Your task to perform on an android device: toggle javascript in the chrome app Image 0: 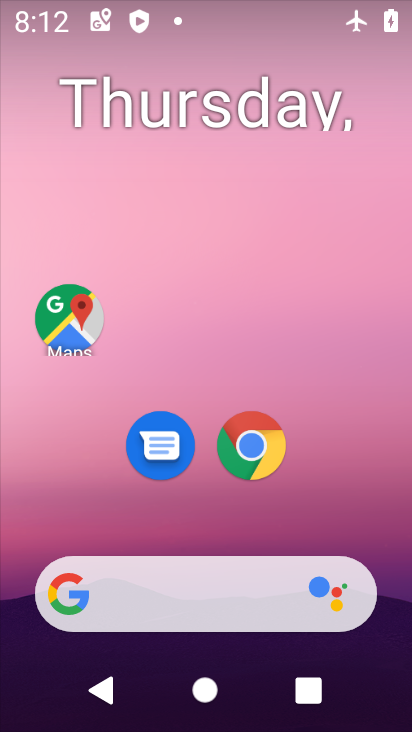
Step 0: drag from (389, 618) to (265, 68)
Your task to perform on an android device: toggle javascript in the chrome app Image 1: 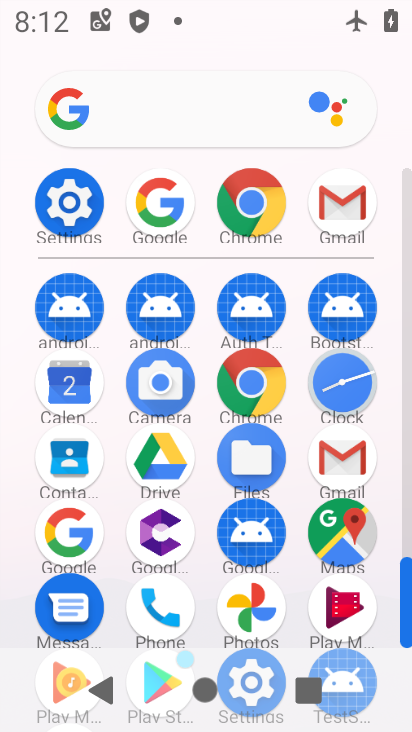
Step 1: click (271, 204)
Your task to perform on an android device: toggle javascript in the chrome app Image 2: 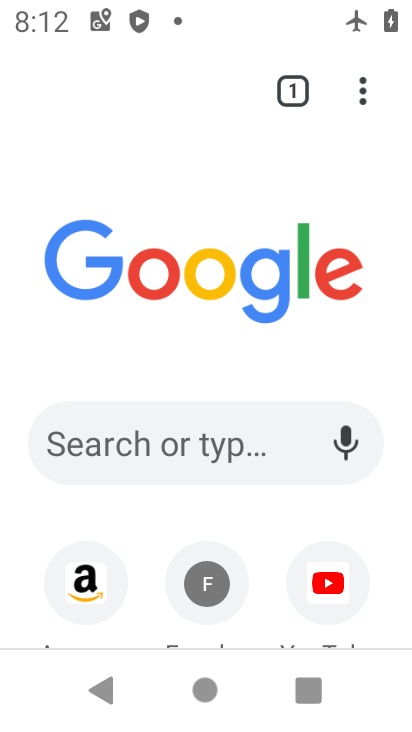
Step 2: click (365, 82)
Your task to perform on an android device: toggle javascript in the chrome app Image 3: 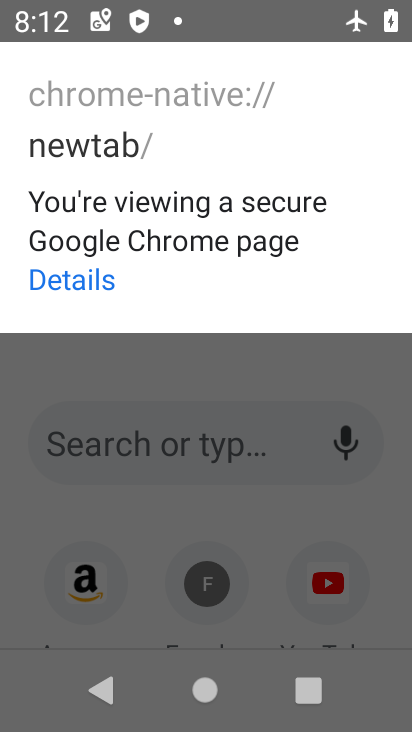
Step 3: press back button
Your task to perform on an android device: toggle javascript in the chrome app Image 4: 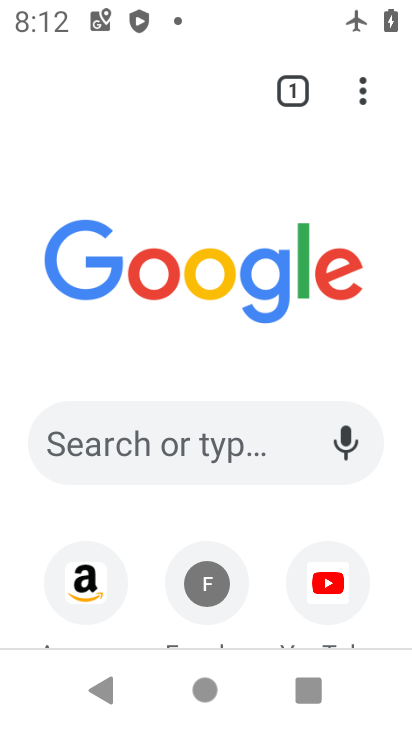
Step 4: click (360, 90)
Your task to perform on an android device: toggle javascript in the chrome app Image 5: 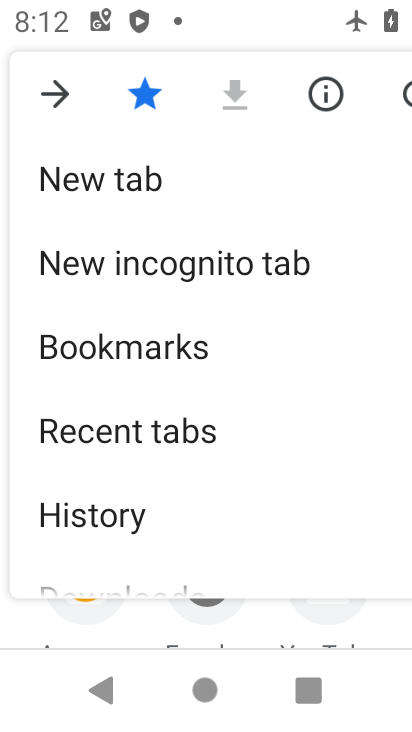
Step 5: drag from (145, 500) to (127, 75)
Your task to perform on an android device: toggle javascript in the chrome app Image 6: 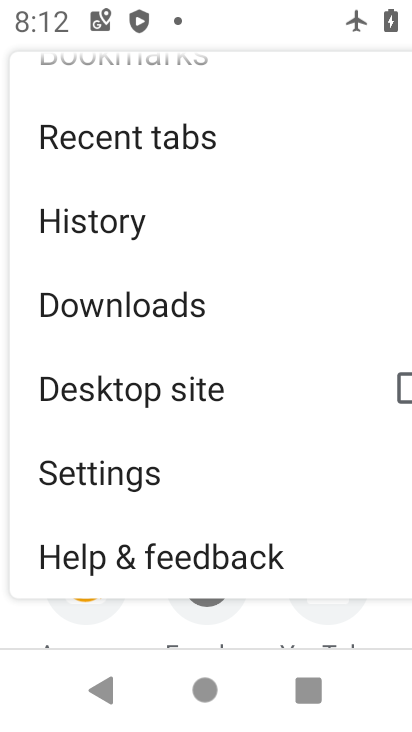
Step 6: click (156, 476)
Your task to perform on an android device: toggle javascript in the chrome app Image 7: 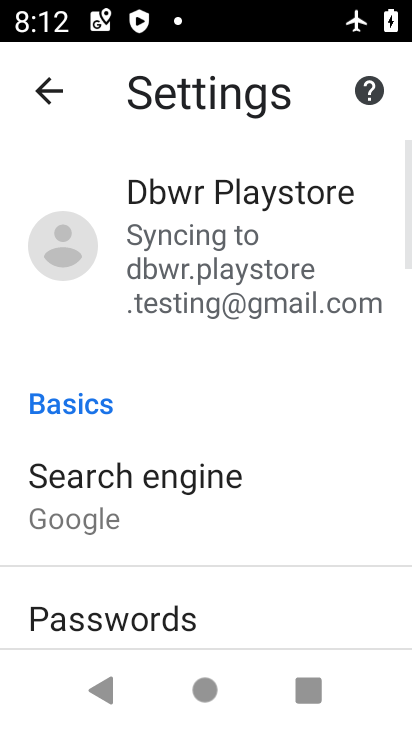
Step 7: drag from (188, 578) to (135, 89)
Your task to perform on an android device: toggle javascript in the chrome app Image 8: 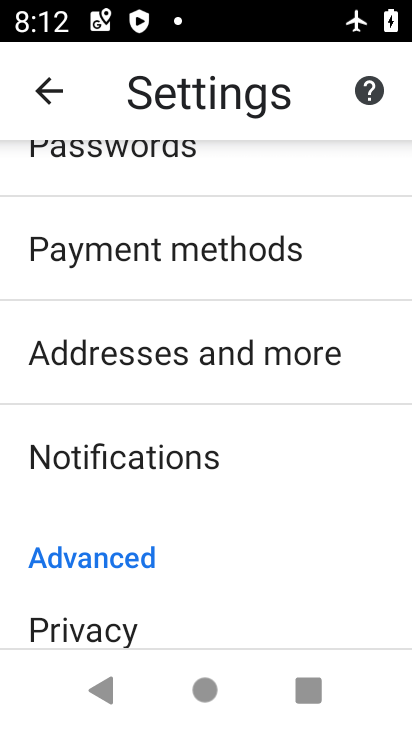
Step 8: drag from (166, 560) to (208, 143)
Your task to perform on an android device: toggle javascript in the chrome app Image 9: 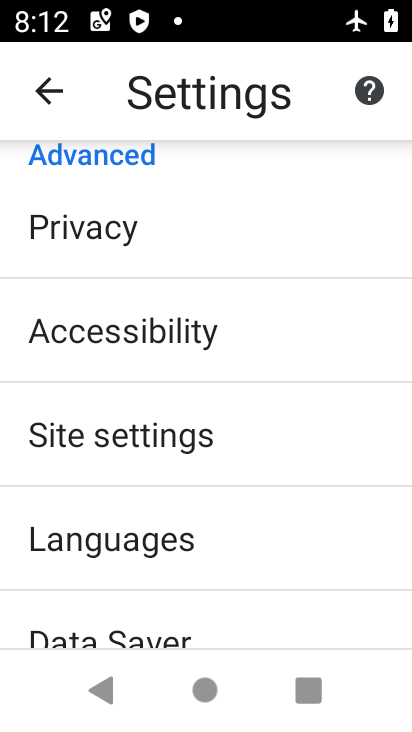
Step 9: click (247, 447)
Your task to perform on an android device: toggle javascript in the chrome app Image 10: 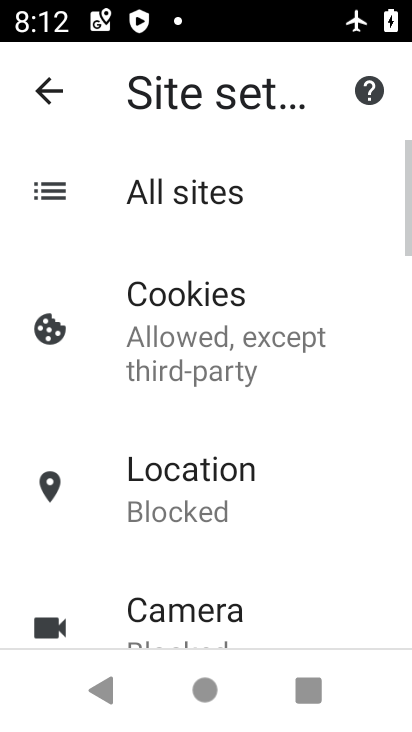
Step 10: click (289, 592)
Your task to perform on an android device: toggle javascript in the chrome app Image 11: 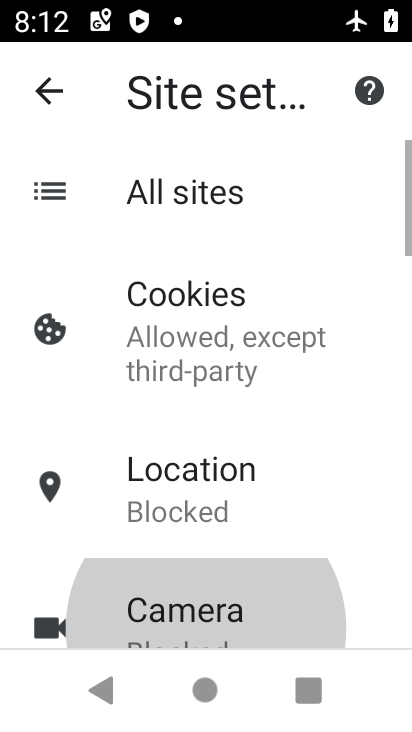
Step 11: drag from (269, 460) to (208, 109)
Your task to perform on an android device: toggle javascript in the chrome app Image 12: 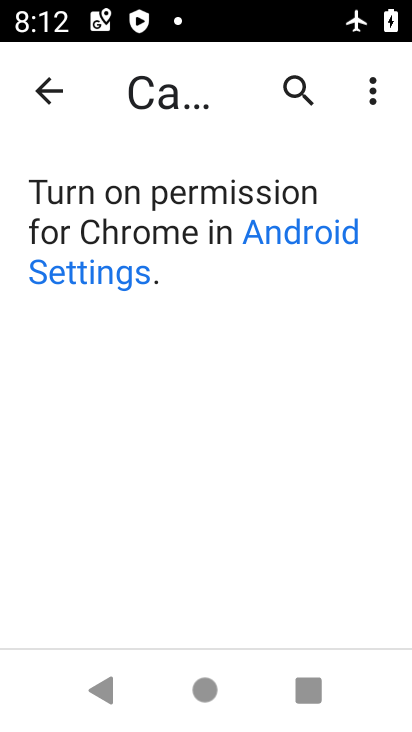
Step 12: press back button
Your task to perform on an android device: toggle javascript in the chrome app Image 13: 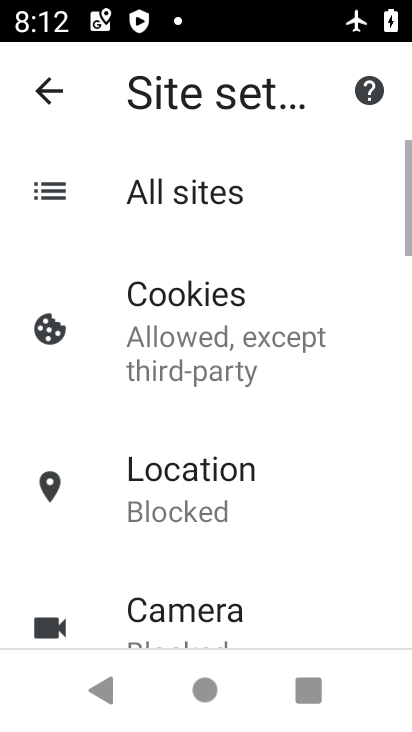
Step 13: drag from (221, 599) to (261, 123)
Your task to perform on an android device: toggle javascript in the chrome app Image 14: 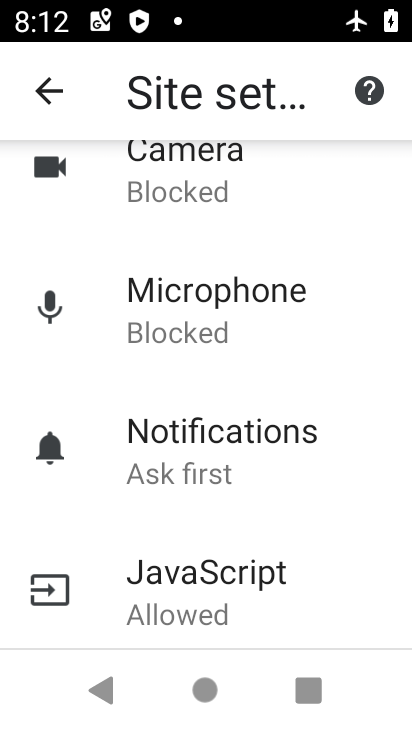
Step 14: click (207, 573)
Your task to perform on an android device: toggle javascript in the chrome app Image 15: 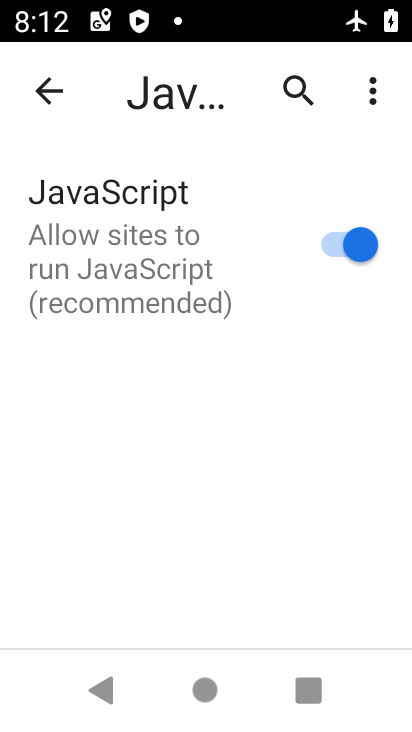
Step 15: click (329, 263)
Your task to perform on an android device: toggle javascript in the chrome app Image 16: 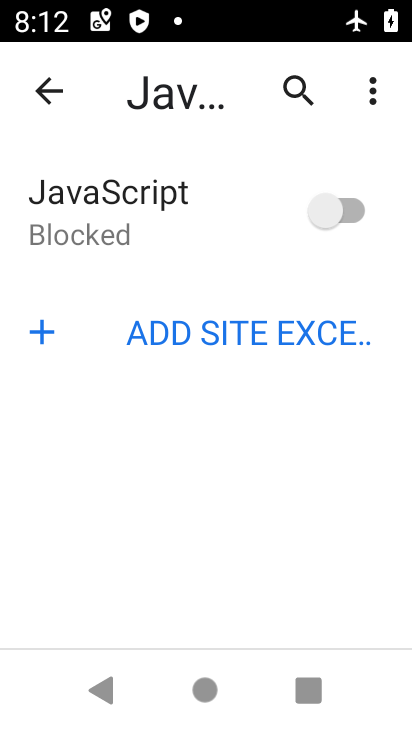
Step 16: task complete